Your task to perform on an android device: open a bookmark in the chrome app Image 0: 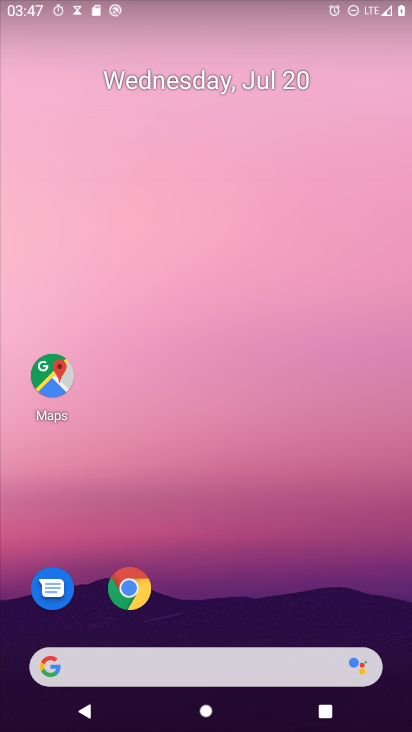
Step 0: drag from (231, 621) to (248, 21)
Your task to perform on an android device: open a bookmark in the chrome app Image 1: 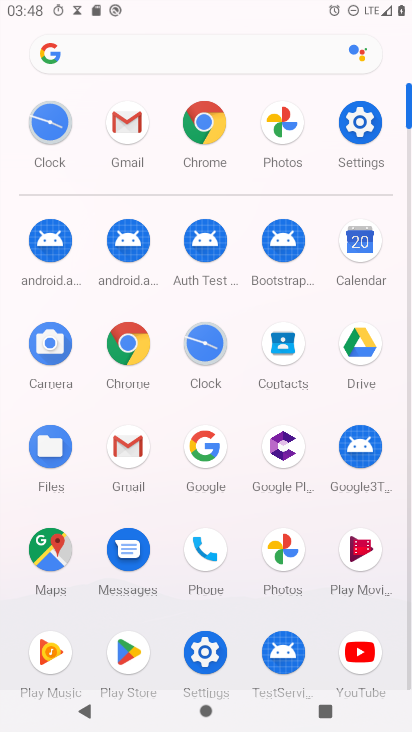
Step 1: click (360, 557)
Your task to perform on an android device: open a bookmark in the chrome app Image 2: 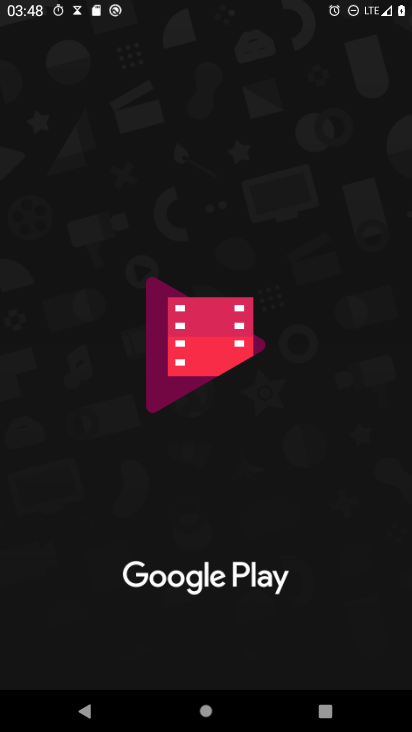
Step 2: press home button
Your task to perform on an android device: open a bookmark in the chrome app Image 3: 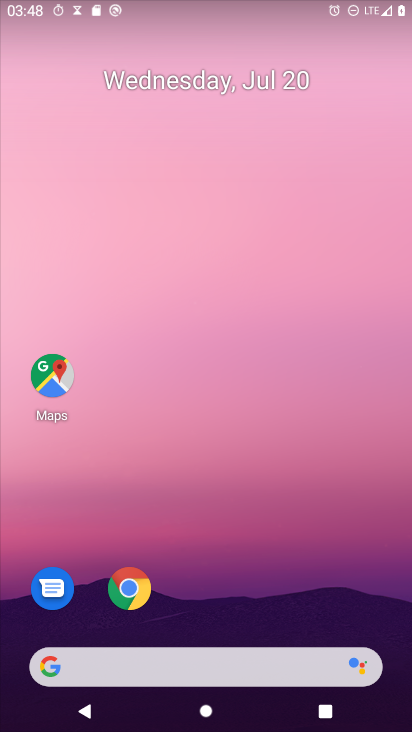
Step 3: click (136, 596)
Your task to perform on an android device: open a bookmark in the chrome app Image 4: 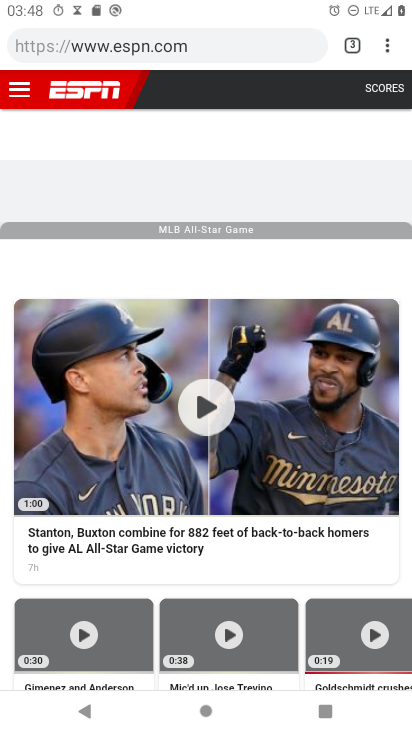
Step 4: click (378, 42)
Your task to perform on an android device: open a bookmark in the chrome app Image 5: 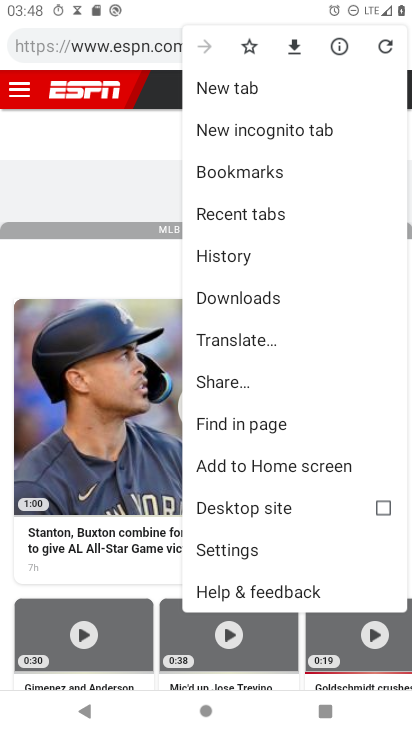
Step 5: click (225, 172)
Your task to perform on an android device: open a bookmark in the chrome app Image 6: 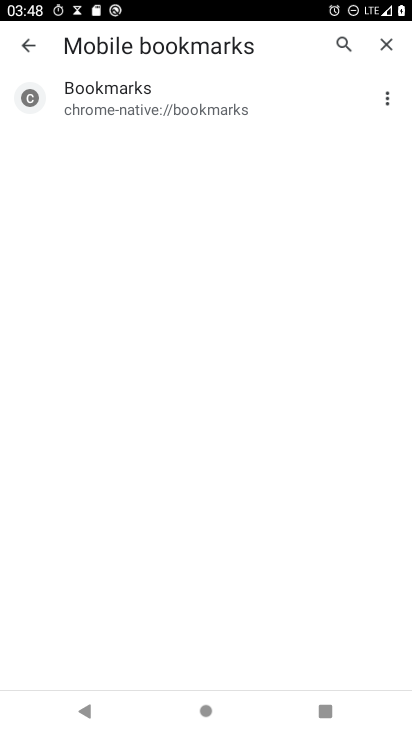
Step 6: task complete